Your task to perform on an android device: Search for Mexican restaurants on Maps Image 0: 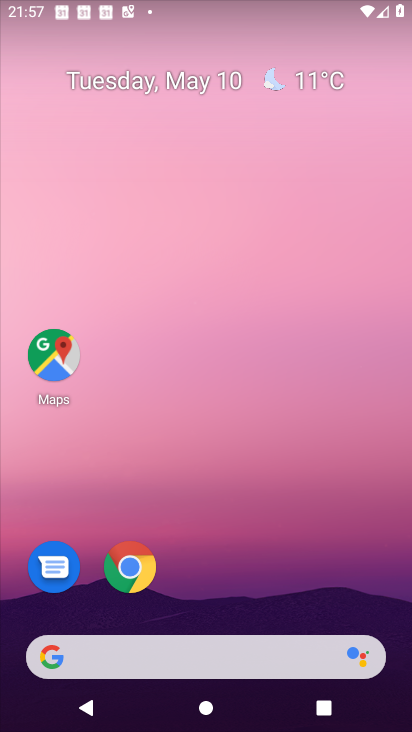
Step 0: click (49, 360)
Your task to perform on an android device: Search for Mexican restaurants on Maps Image 1: 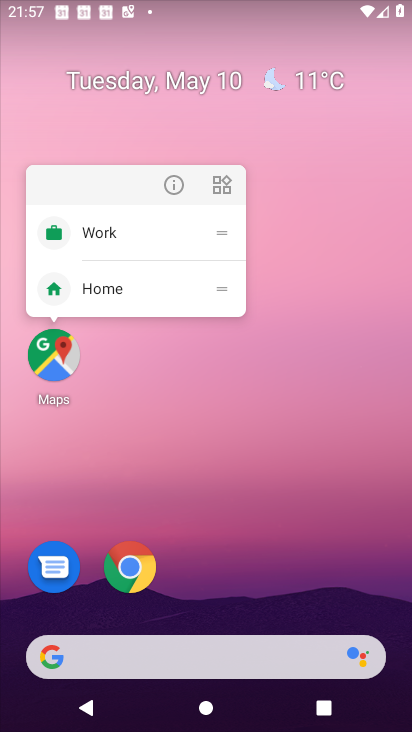
Step 1: click (50, 359)
Your task to perform on an android device: Search for Mexican restaurants on Maps Image 2: 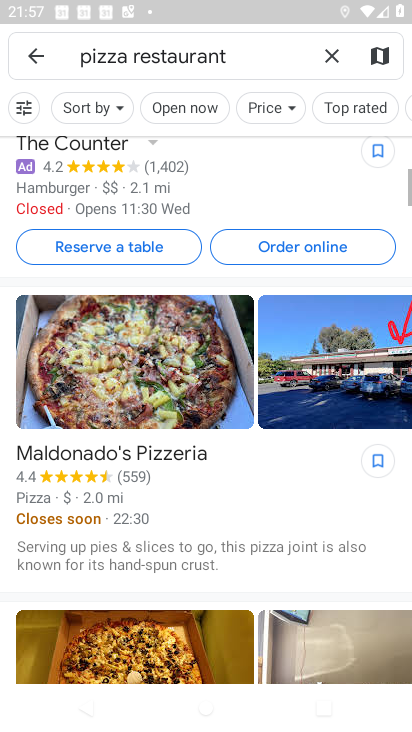
Step 2: click (318, 52)
Your task to perform on an android device: Search for Mexican restaurants on Maps Image 3: 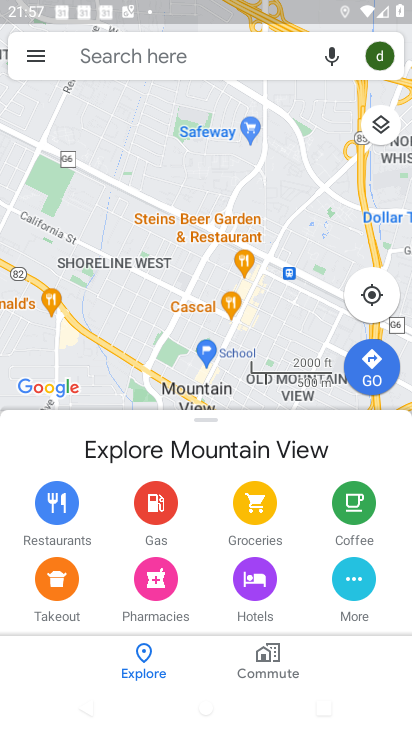
Step 3: click (191, 72)
Your task to perform on an android device: Search for Mexican restaurants on Maps Image 4: 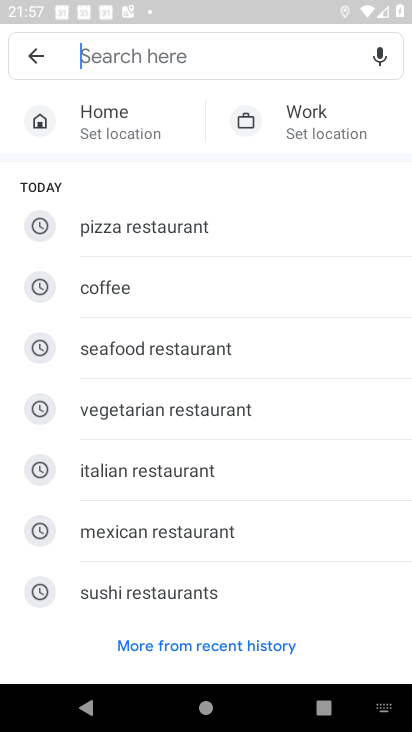
Step 4: click (144, 527)
Your task to perform on an android device: Search for Mexican restaurants on Maps Image 5: 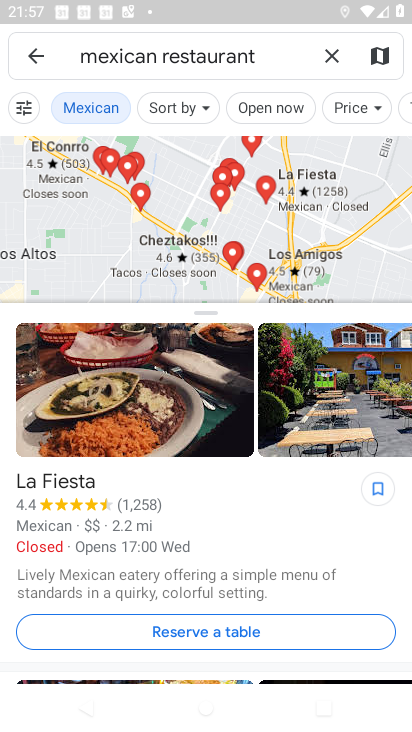
Step 5: task complete